Your task to perform on an android device: turn off location Image 0: 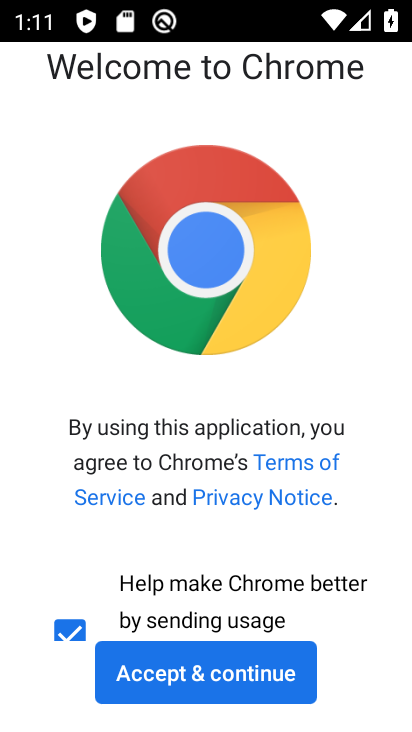
Step 0: press home button
Your task to perform on an android device: turn off location Image 1: 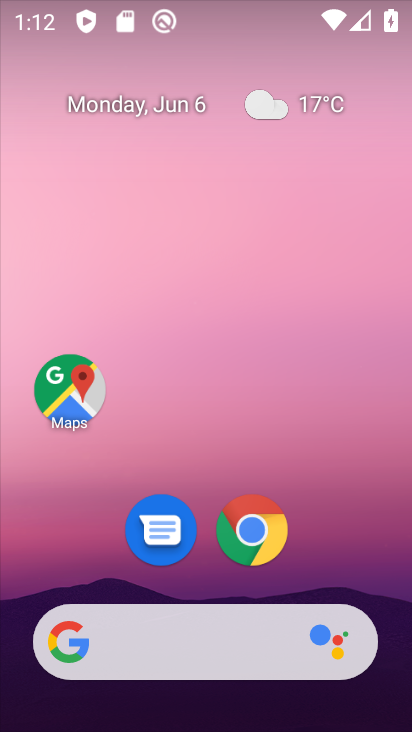
Step 1: drag from (340, 552) to (266, 85)
Your task to perform on an android device: turn off location Image 2: 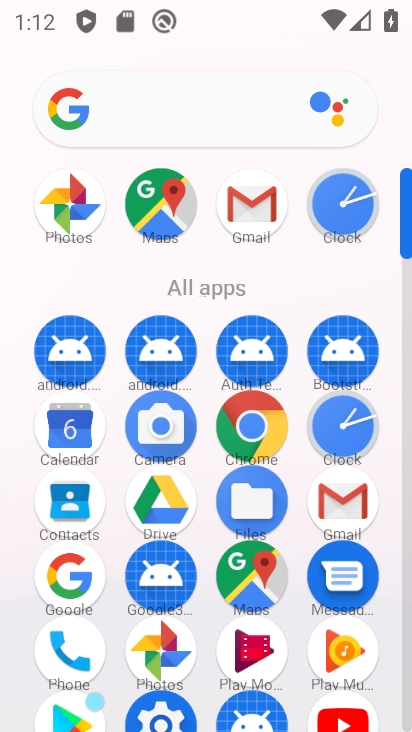
Step 2: drag from (291, 318) to (279, 103)
Your task to perform on an android device: turn off location Image 3: 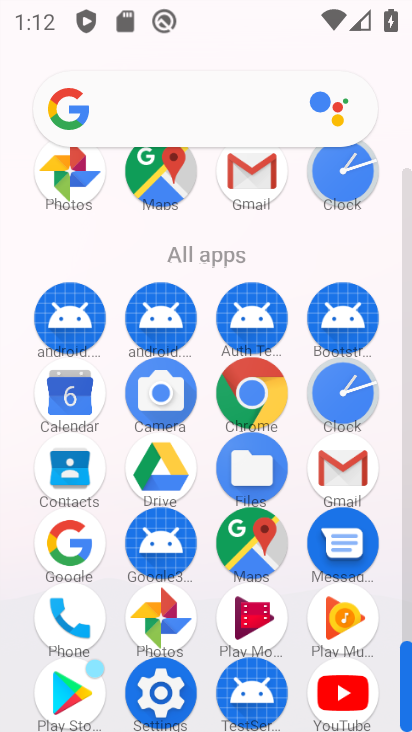
Step 3: click (161, 691)
Your task to perform on an android device: turn off location Image 4: 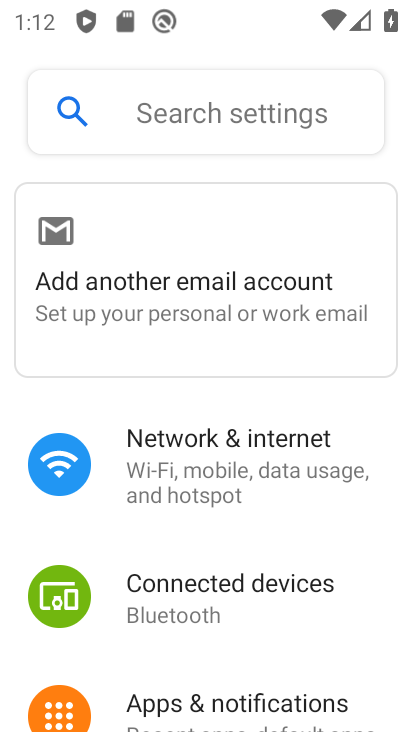
Step 4: drag from (240, 549) to (237, 370)
Your task to perform on an android device: turn off location Image 5: 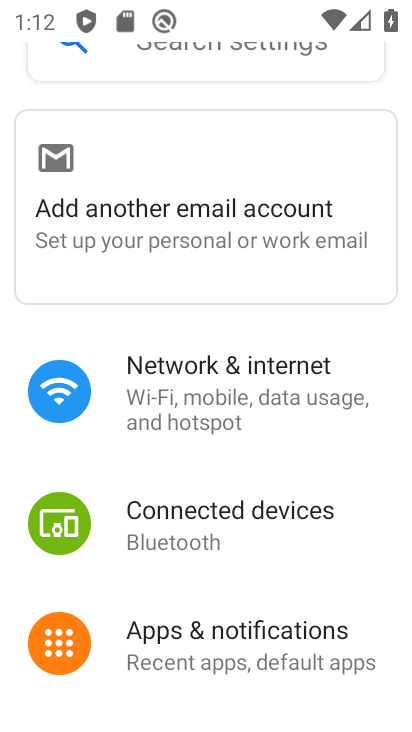
Step 5: drag from (192, 581) to (207, 290)
Your task to perform on an android device: turn off location Image 6: 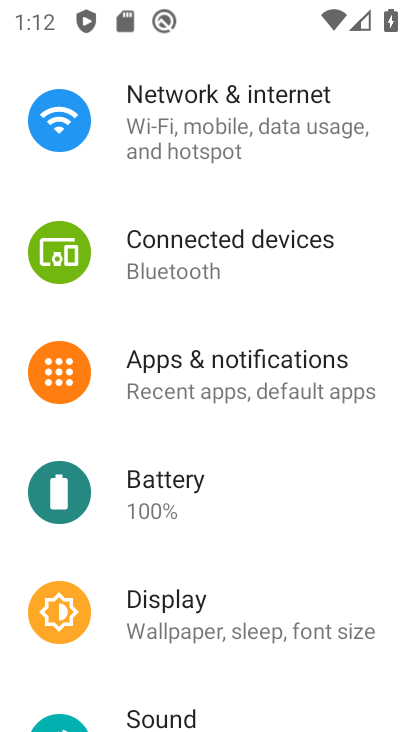
Step 6: drag from (179, 563) to (167, 435)
Your task to perform on an android device: turn off location Image 7: 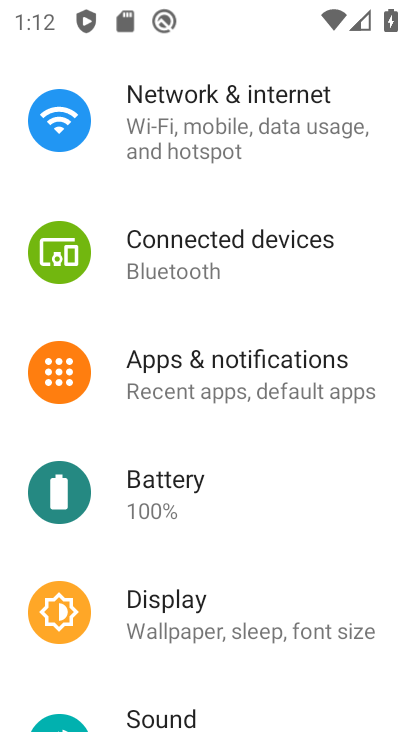
Step 7: drag from (171, 509) to (167, 337)
Your task to perform on an android device: turn off location Image 8: 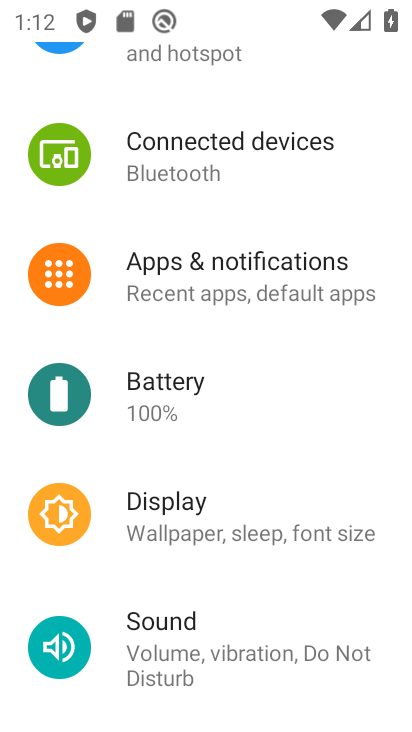
Step 8: drag from (174, 465) to (178, 318)
Your task to perform on an android device: turn off location Image 9: 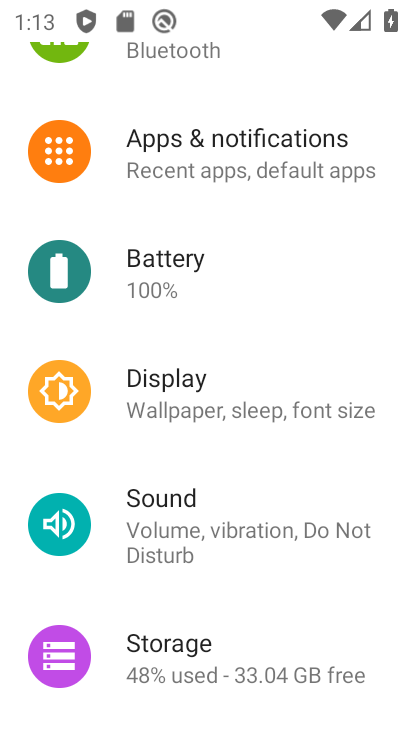
Step 9: drag from (168, 452) to (224, 295)
Your task to perform on an android device: turn off location Image 10: 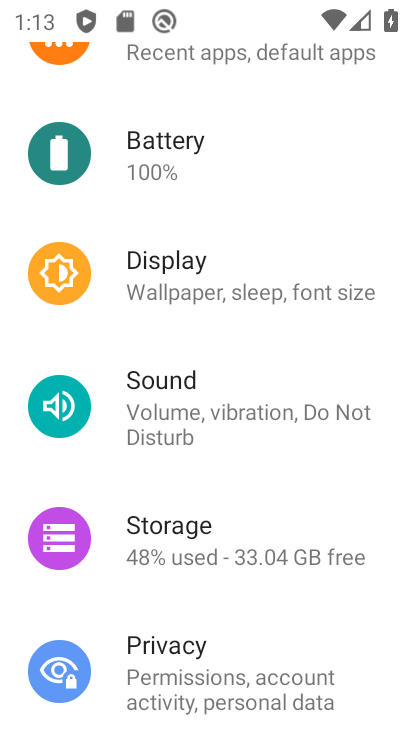
Step 10: drag from (164, 474) to (187, 352)
Your task to perform on an android device: turn off location Image 11: 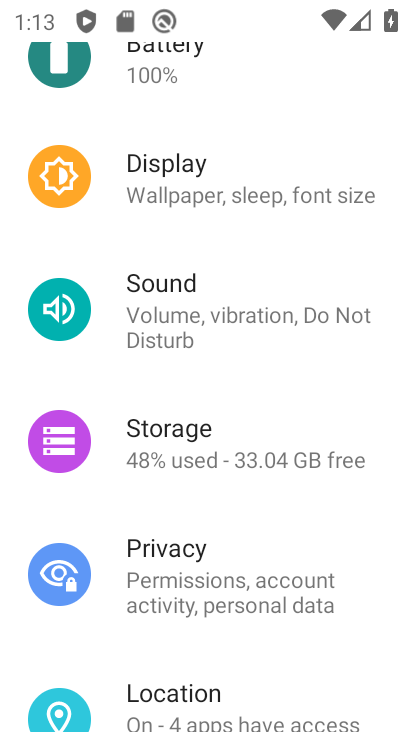
Step 11: drag from (192, 501) to (212, 315)
Your task to perform on an android device: turn off location Image 12: 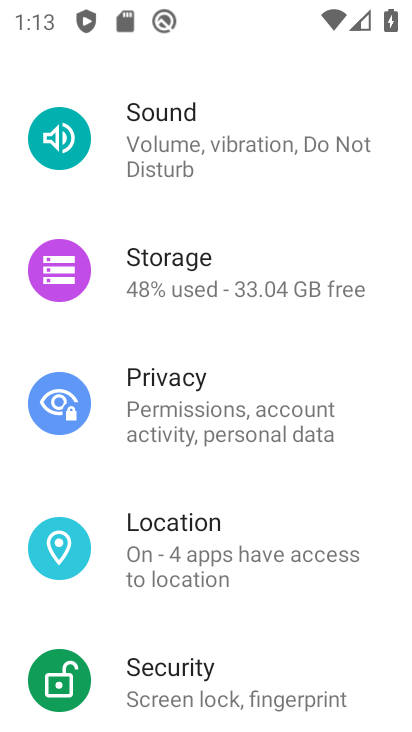
Step 12: click (183, 526)
Your task to perform on an android device: turn off location Image 13: 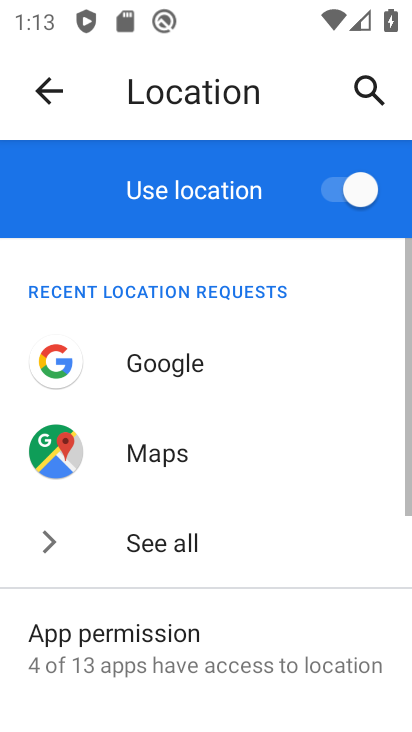
Step 13: click (329, 190)
Your task to perform on an android device: turn off location Image 14: 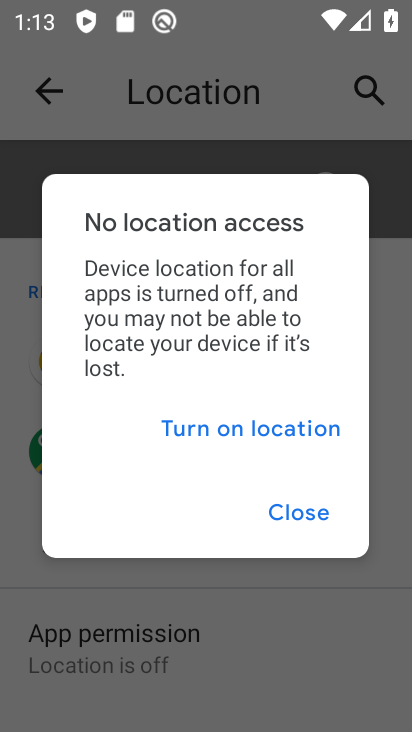
Step 14: click (284, 522)
Your task to perform on an android device: turn off location Image 15: 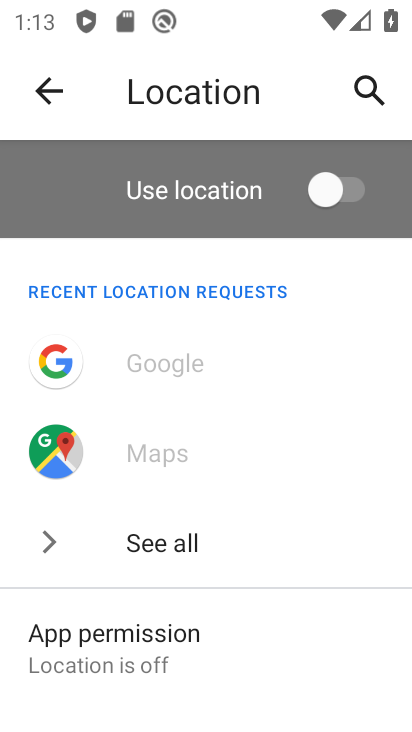
Step 15: task complete